Your task to perform on an android device: Open Maps and search for coffee Image 0: 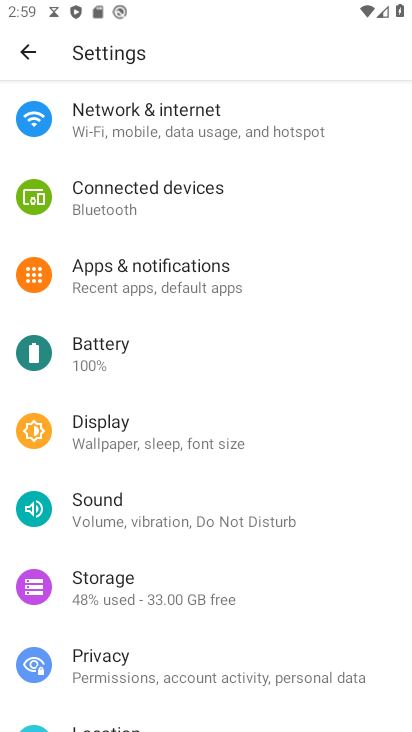
Step 0: press home button
Your task to perform on an android device: Open Maps and search for coffee Image 1: 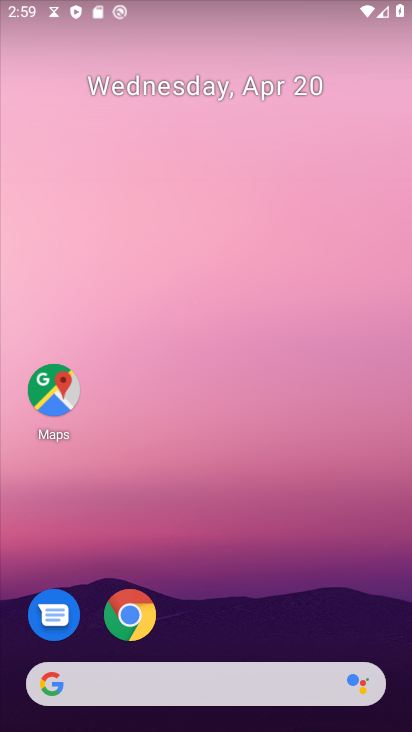
Step 1: drag from (177, 627) to (271, 48)
Your task to perform on an android device: Open Maps and search for coffee Image 2: 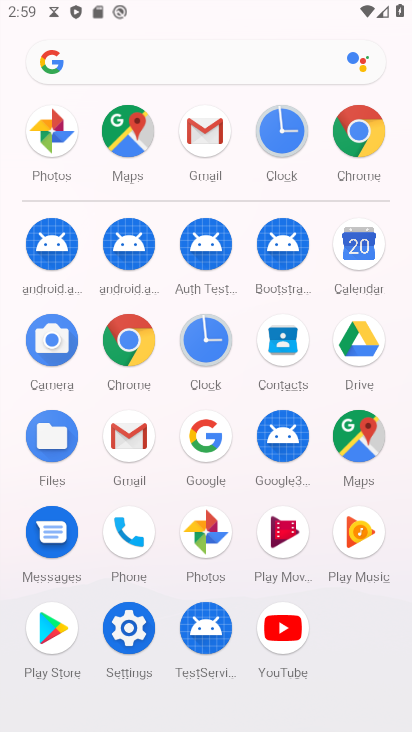
Step 2: click (348, 434)
Your task to perform on an android device: Open Maps and search for coffee Image 3: 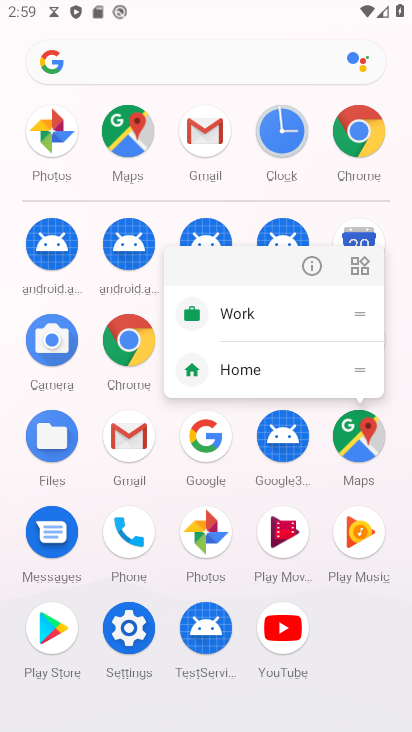
Step 3: click (313, 261)
Your task to perform on an android device: Open Maps and search for coffee Image 4: 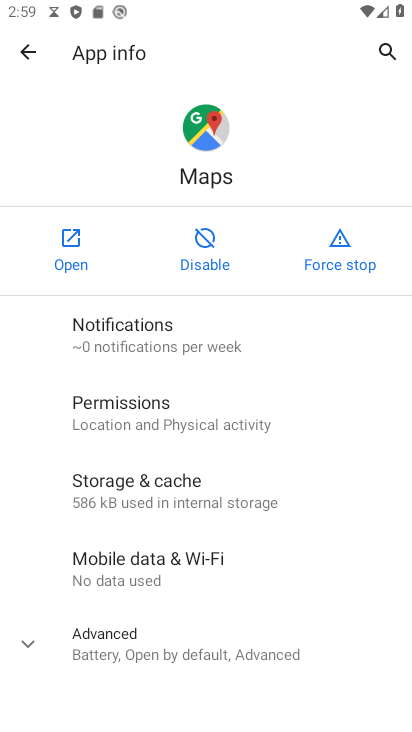
Step 4: click (72, 242)
Your task to perform on an android device: Open Maps and search for coffee Image 5: 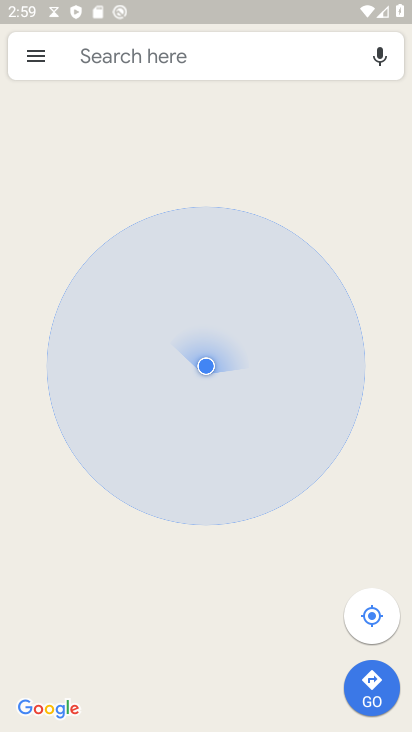
Step 5: click (181, 53)
Your task to perform on an android device: Open Maps and search for coffee Image 6: 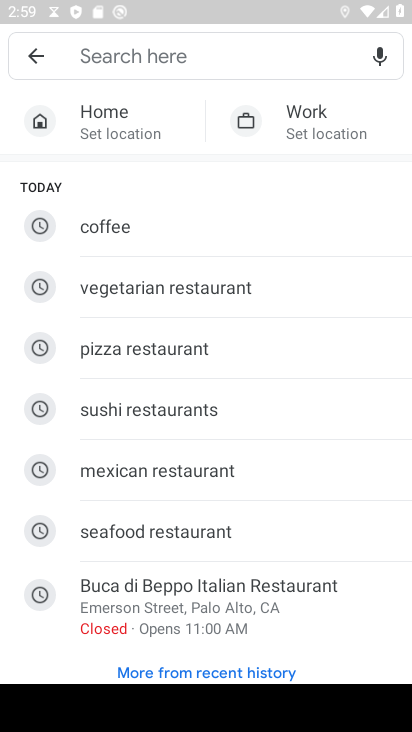
Step 6: click (141, 222)
Your task to perform on an android device: Open Maps and search for coffee Image 7: 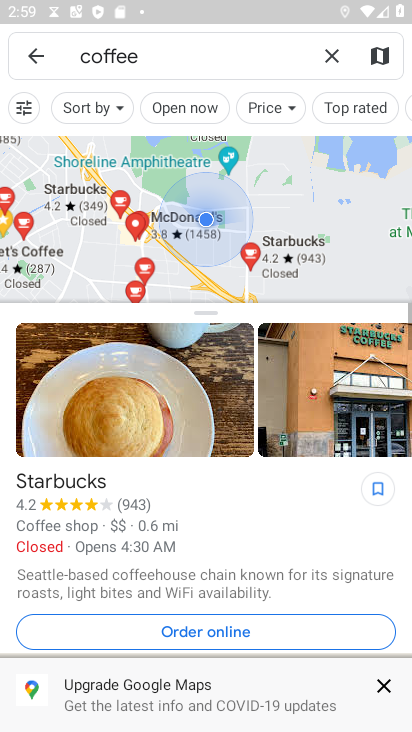
Step 7: task complete